Your task to perform on an android device: change the clock style Image 0: 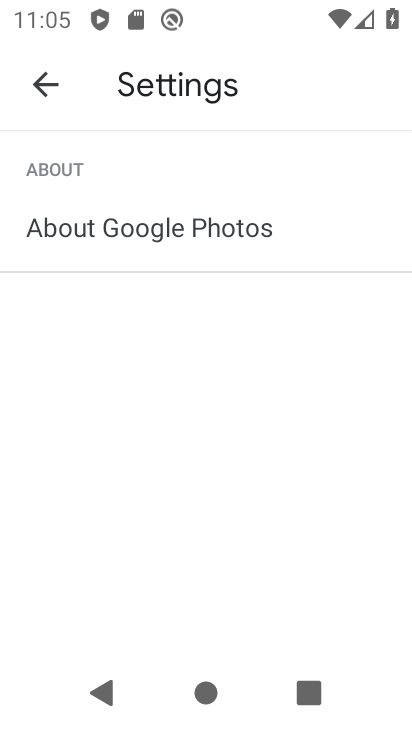
Step 0: press back button
Your task to perform on an android device: change the clock style Image 1: 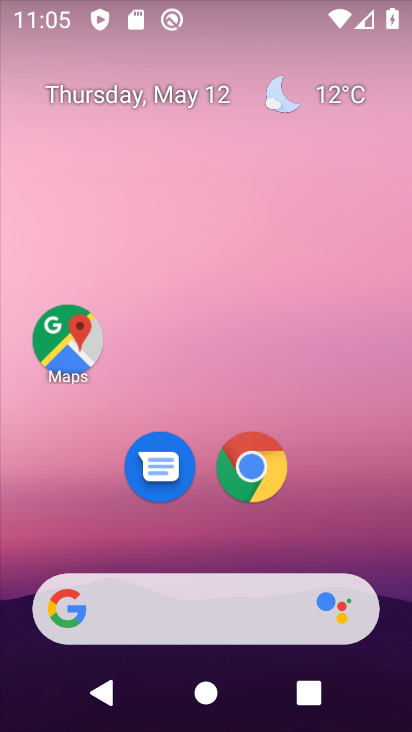
Step 1: drag from (339, 533) to (224, 44)
Your task to perform on an android device: change the clock style Image 2: 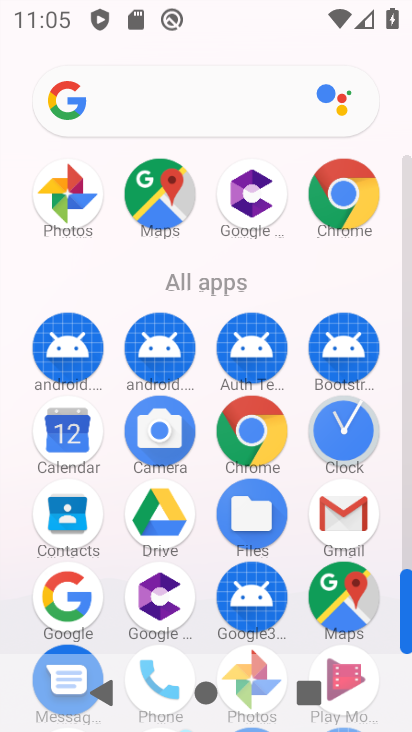
Step 2: drag from (4, 502) to (3, 228)
Your task to perform on an android device: change the clock style Image 3: 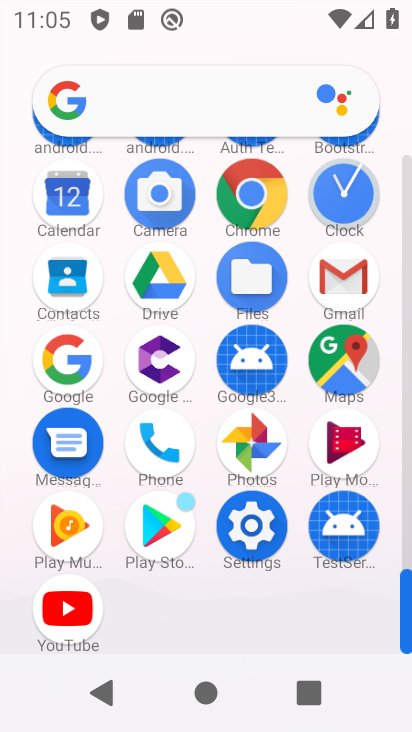
Step 3: click (348, 190)
Your task to perform on an android device: change the clock style Image 4: 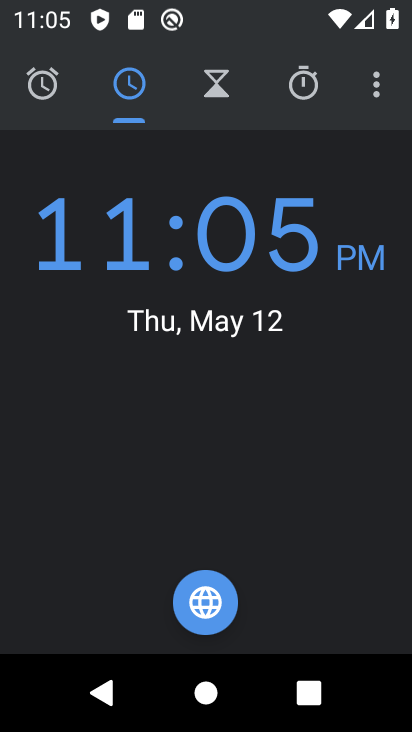
Step 4: drag from (375, 92) to (189, 169)
Your task to perform on an android device: change the clock style Image 5: 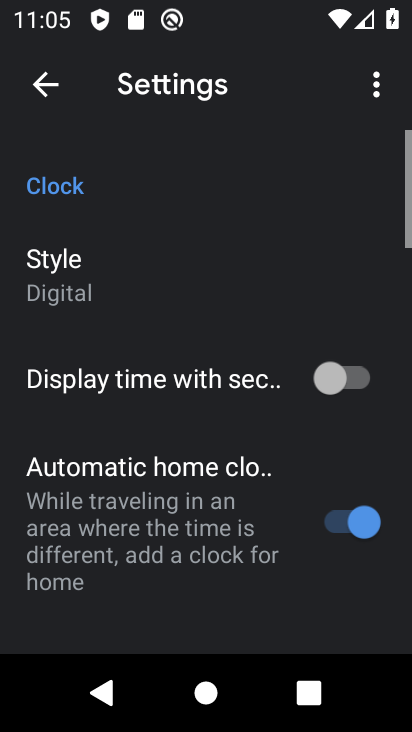
Step 5: click (92, 258)
Your task to perform on an android device: change the clock style Image 6: 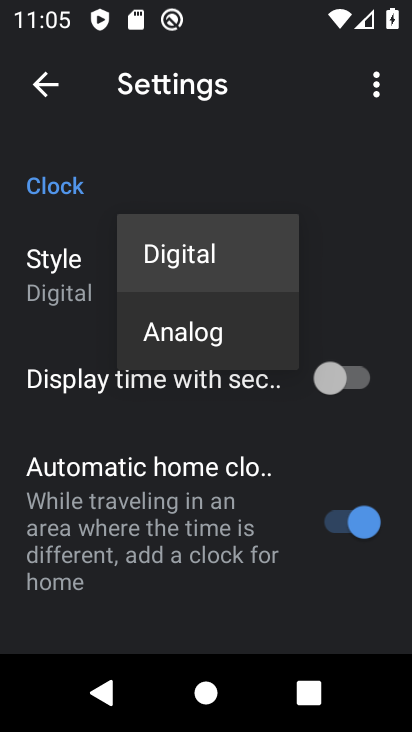
Step 6: click (193, 333)
Your task to perform on an android device: change the clock style Image 7: 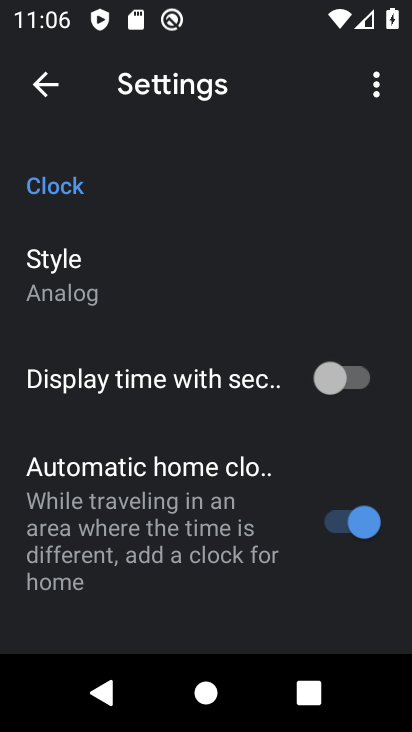
Step 7: task complete